Your task to perform on an android device: Open Youtube and go to "Your channel" Image 0: 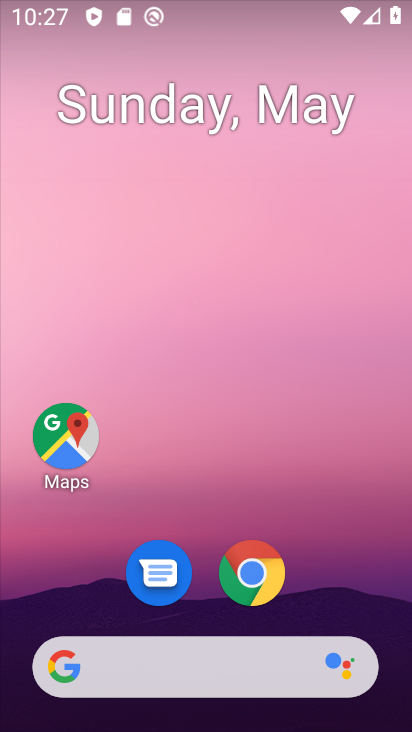
Step 0: drag from (380, 604) to (320, 231)
Your task to perform on an android device: Open Youtube and go to "Your channel" Image 1: 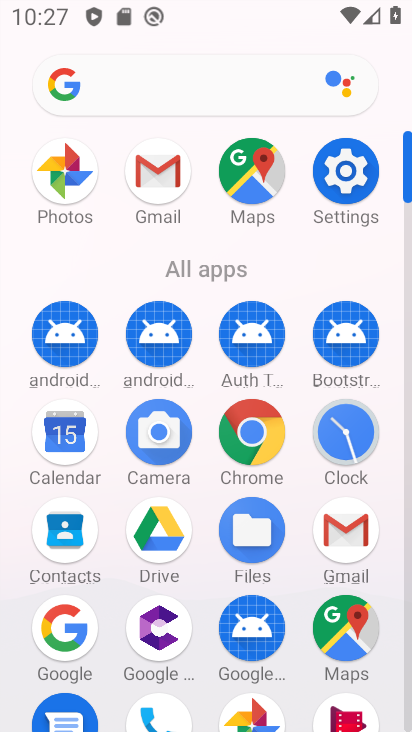
Step 1: click (411, 715)
Your task to perform on an android device: Open Youtube and go to "Your channel" Image 2: 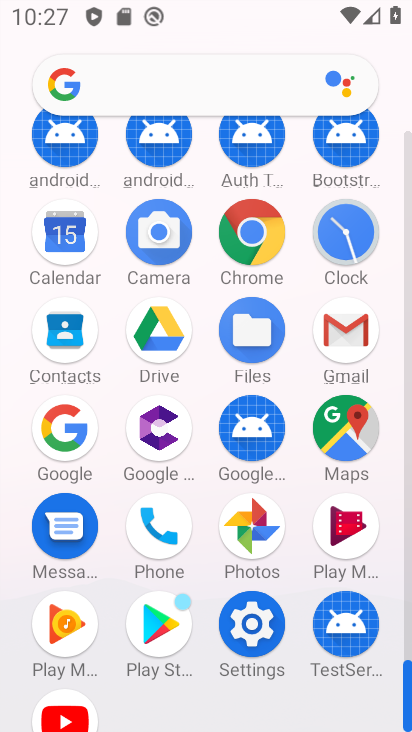
Step 2: click (77, 711)
Your task to perform on an android device: Open Youtube and go to "Your channel" Image 3: 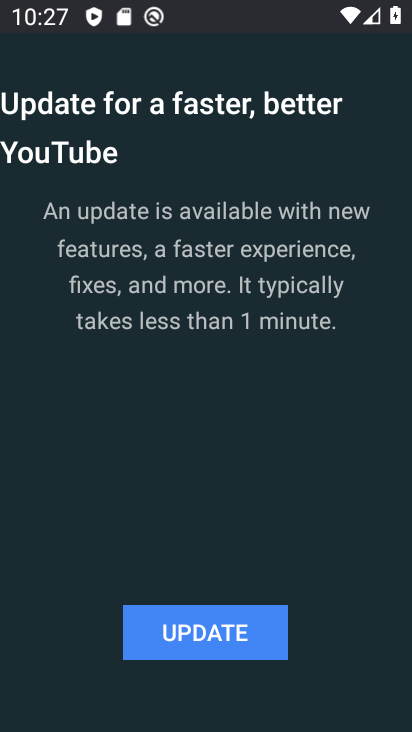
Step 3: click (244, 646)
Your task to perform on an android device: Open Youtube and go to "Your channel" Image 4: 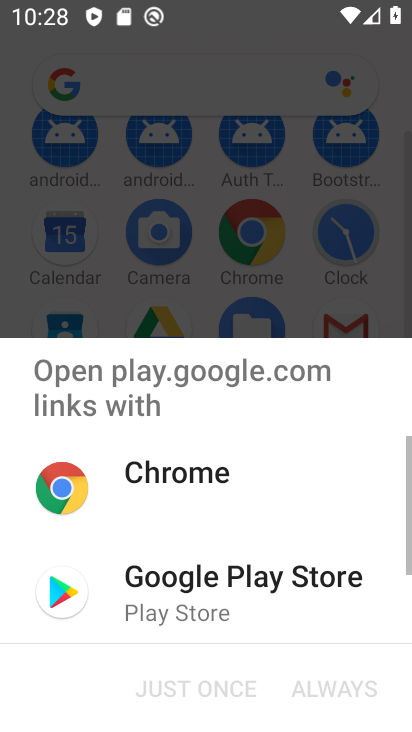
Step 4: click (276, 611)
Your task to perform on an android device: Open Youtube and go to "Your channel" Image 5: 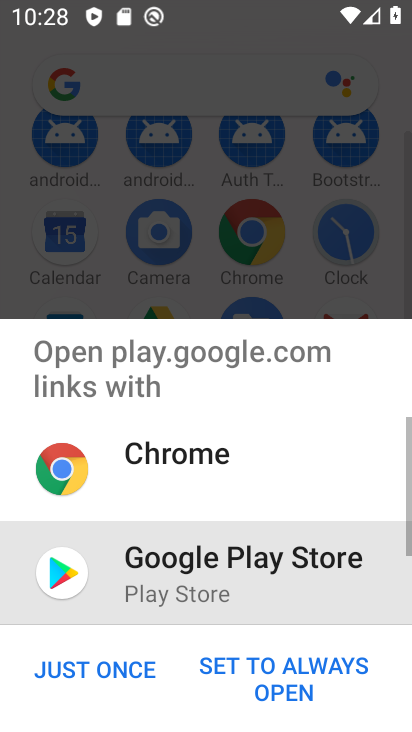
Step 5: click (92, 671)
Your task to perform on an android device: Open Youtube and go to "Your channel" Image 6: 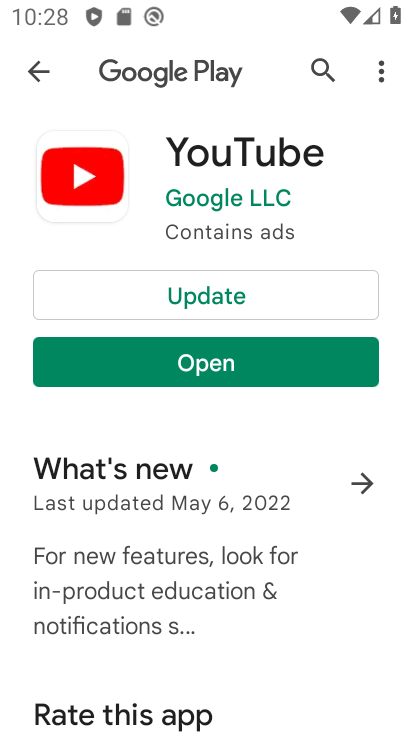
Step 6: click (231, 305)
Your task to perform on an android device: Open Youtube and go to "Your channel" Image 7: 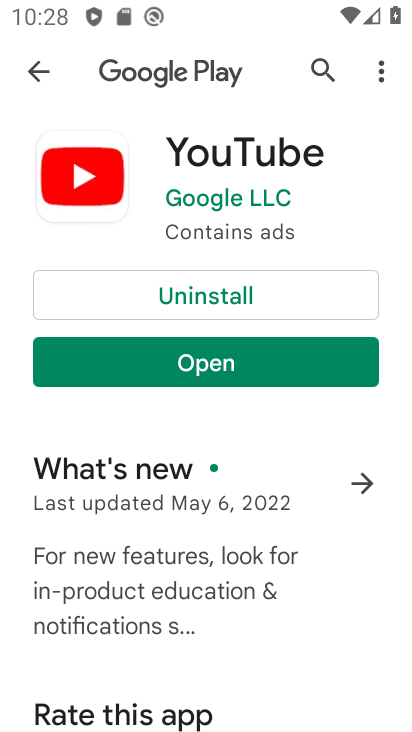
Step 7: click (241, 364)
Your task to perform on an android device: Open Youtube and go to "Your channel" Image 8: 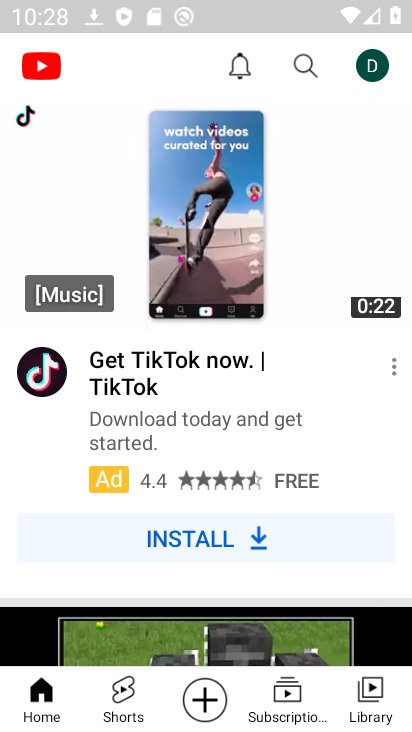
Step 8: click (375, 69)
Your task to perform on an android device: Open Youtube and go to "Your channel" Image 9: 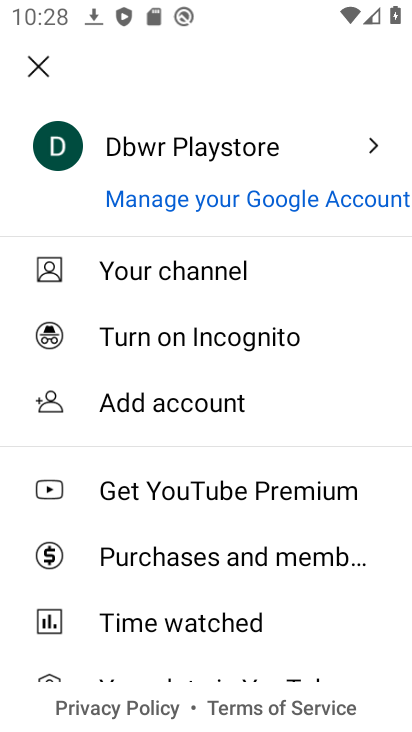
Step 9: click (272, 269)
Your task to perform on an android device: Open Youtube and go to "Your channel" Image 10: 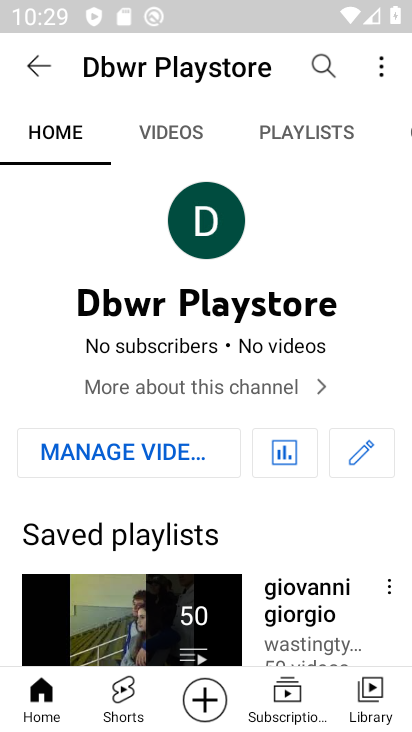
Step 10: task complete